Your task to perform on an android device: change alarm snooze length Image 0: 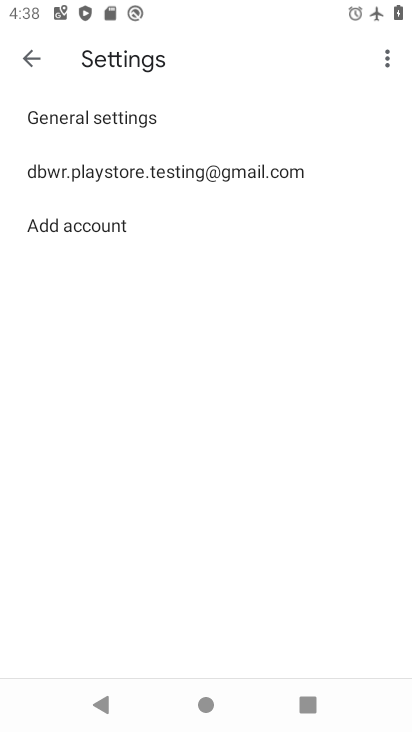
Step 0: press home button
Your task to perform on an android device: change alarm snooze length Image 1: 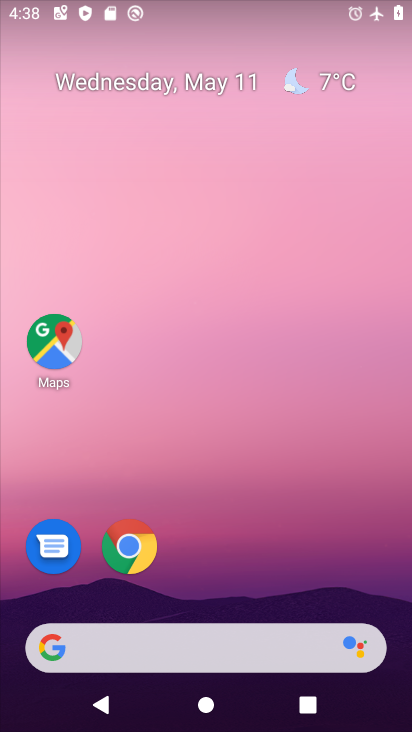
Step 1: drag from (251, 586) to (257, 26)
Your task to perform on an android device: change alarm snooze length Image 2: 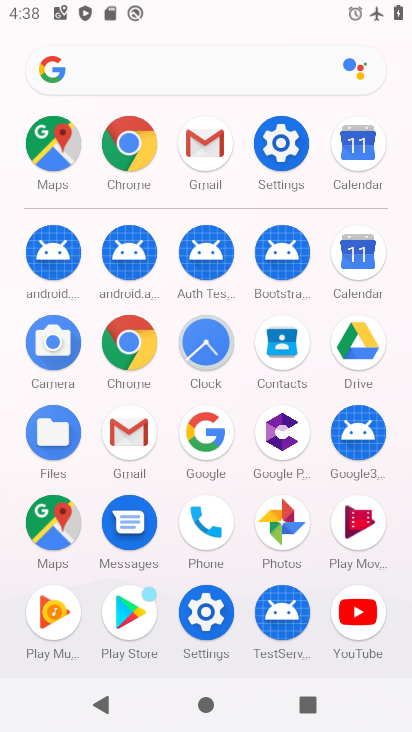
Step 2: click (198, 338)
Your task to perform on an android device: change alarm snooze length Image 3: 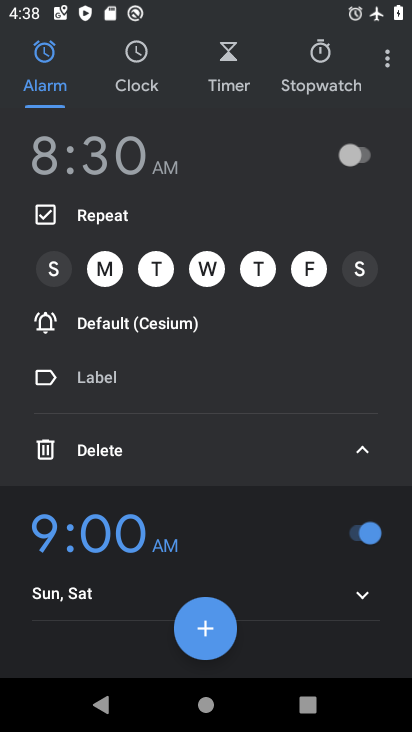
Step 3: click (381, 59)
Your task to perform on an android device: change alarm snooze length Image 4: 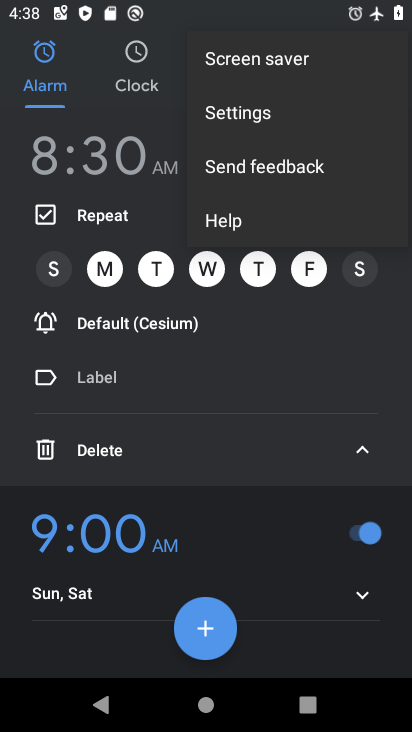
Step 4: click (260, 129)
Your task to perform on an android device: change alarm snooze length Image 5: 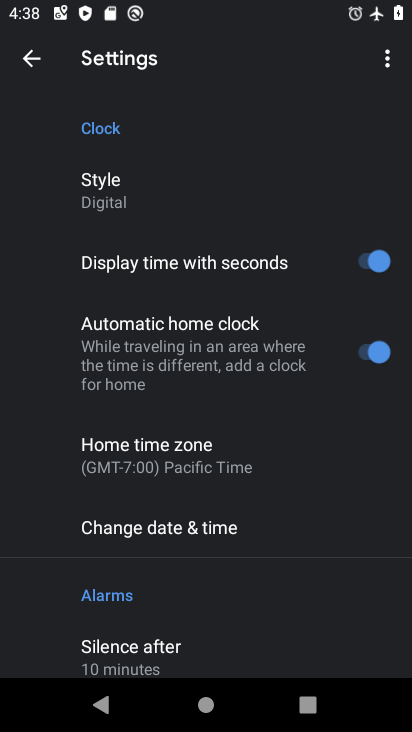
Step 5: drag from (232, 595) to (279, 293)
Your task to perform on an android device: change alarm snooze length Image 6: 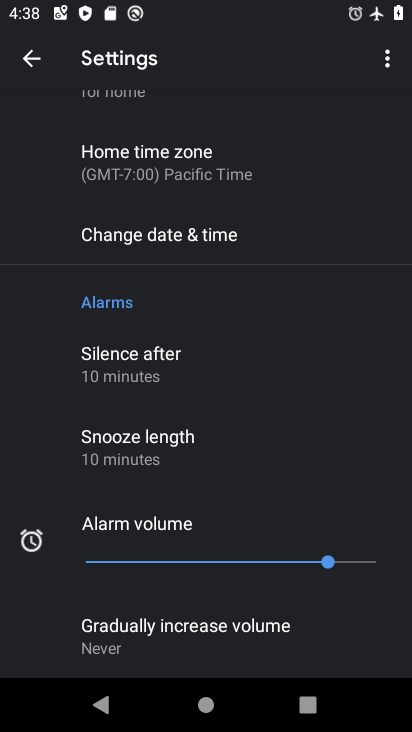
Step 6: click (148, 449)
Your task to perform on an android device: change alarm snooze length Image 7: 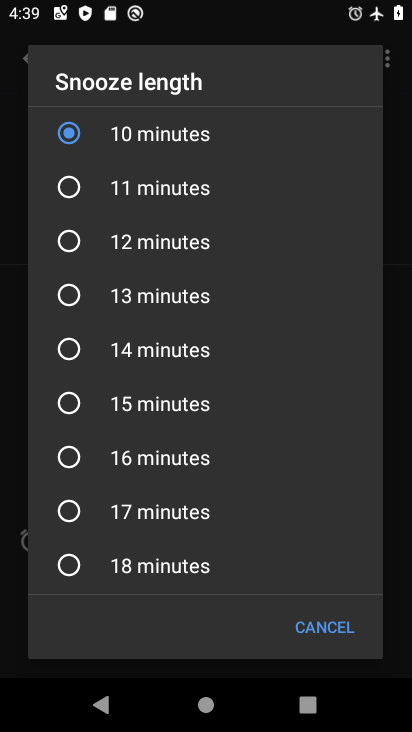
Step 7: click (156, 250)
Your task to perform on an android device: change alarm snooze length Image 8: 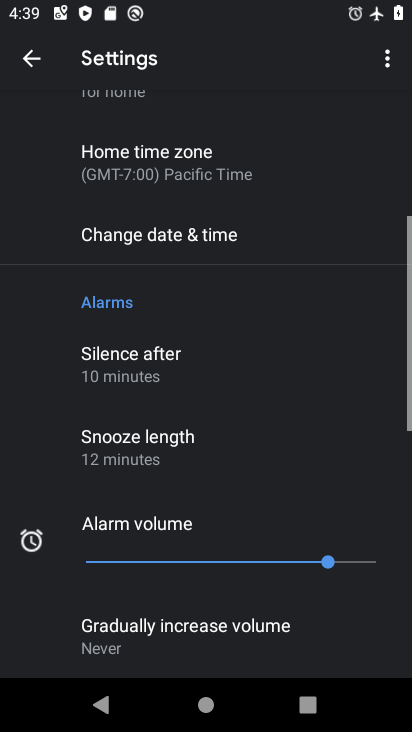
Step 8: task complete